Your task to perform on an android device: Search for Mexican restaurants on Maps Image 0: 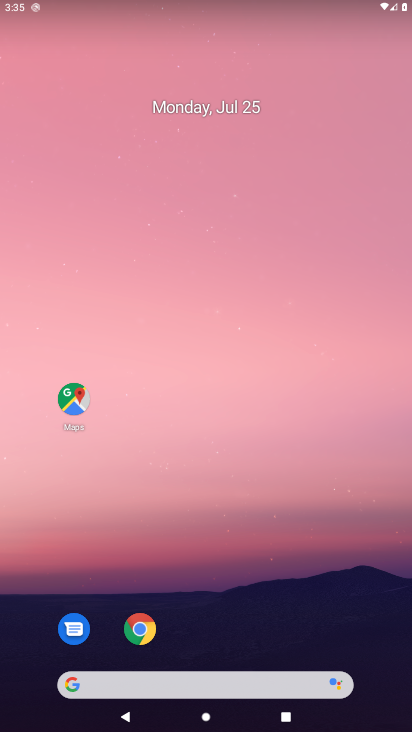
Step 0: click (65, 391)
Your task to perform on an android device: Search for Mexican restaurants on Maps Image 1: 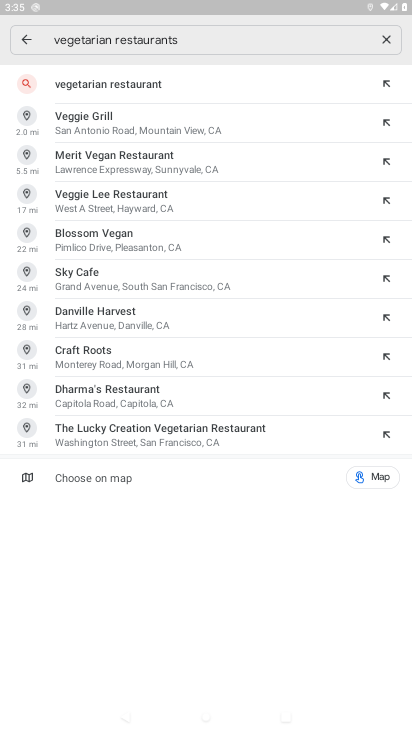
Step 1: click (387, 36)
Your task to perform on an android device: Search for Mexican restaurants on Maps Image 2: 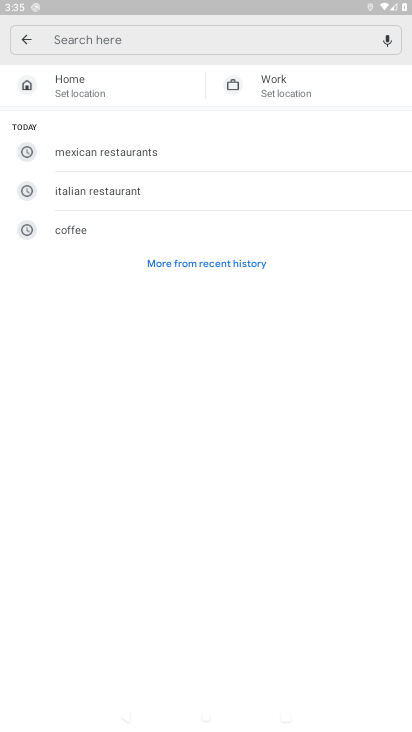
Step 2: click (26, 45)
Your task to perform on an android device: Search for Mexican restaurants on Maps Image 3: 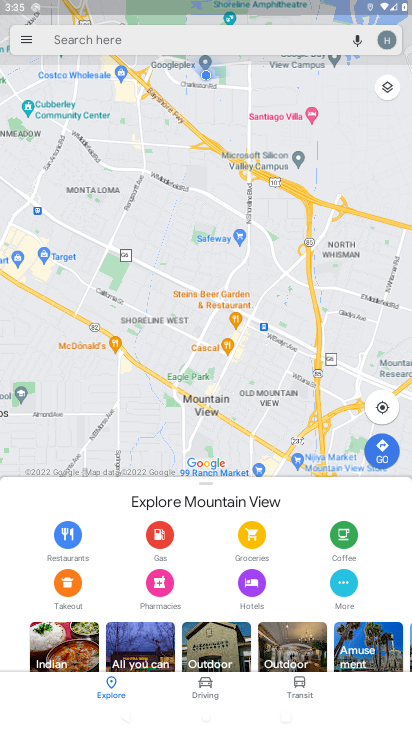
Step 3: click (75, 34)
Your task to perform on an android device: Search for Mexican restaurants on Maps Image 4: 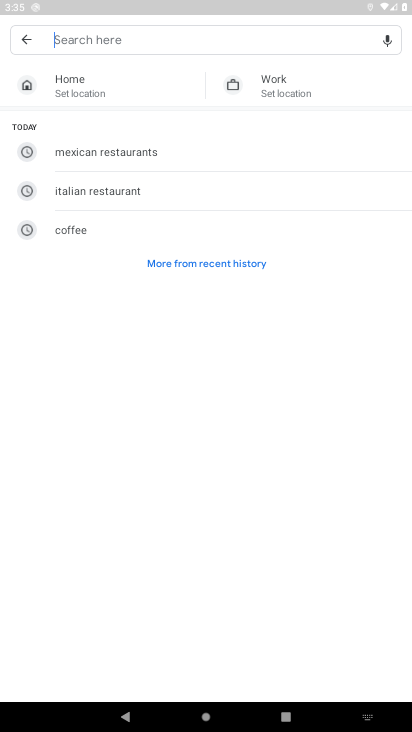
Step 4: click (116, 152)
Your task to perform on an android device: Search for Mexican restaurants on Maps Image 5: 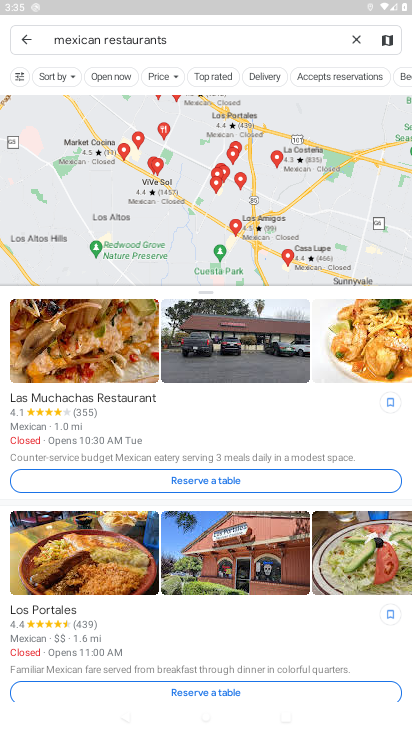
Step 5: task complete